Your task to perform on an android device: install app "Reddit" Image 0: 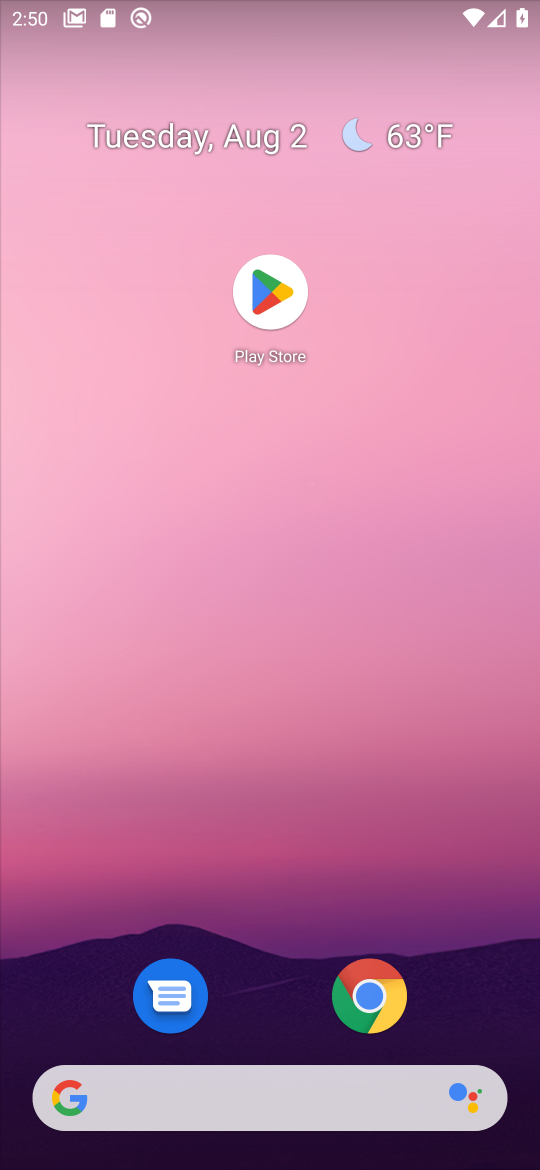
Step 0: click (256, 320)
Your task to perform on an android device: install app "Reddit" Image 1: 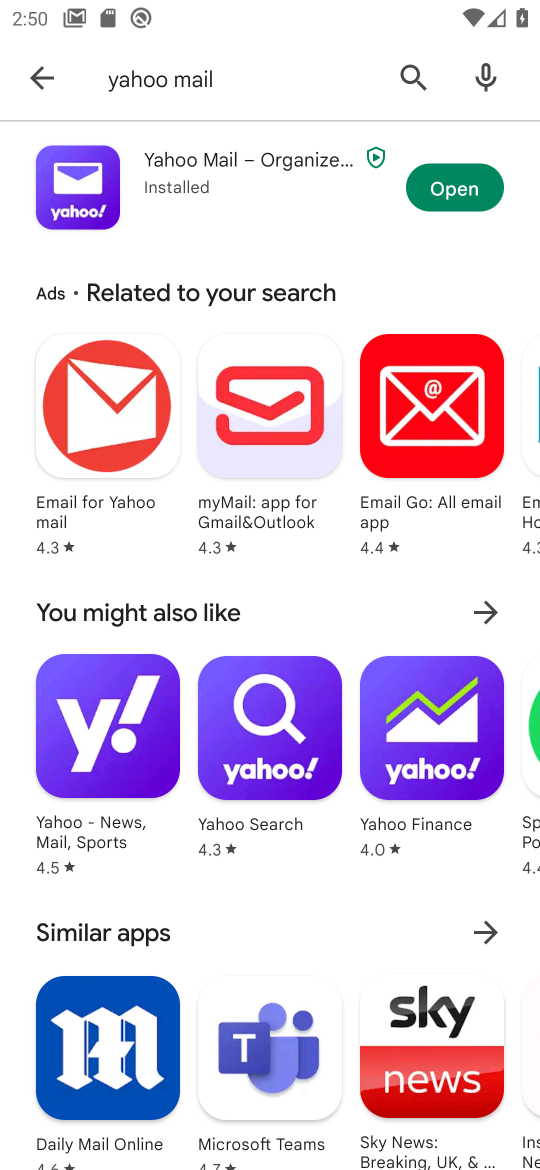
Step 1: click (324, 92)
Your task to perform on an android device: install app "Reddit" Image 2: 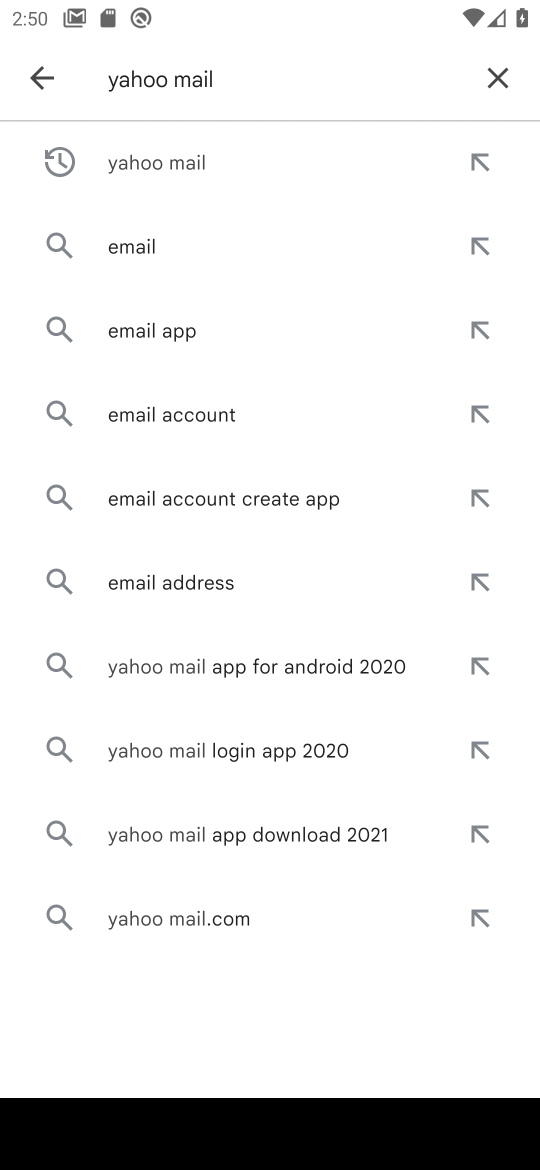
Step 2: click (495, 69)
Your task to perform on an android device: install app "Reddit" Image 3: 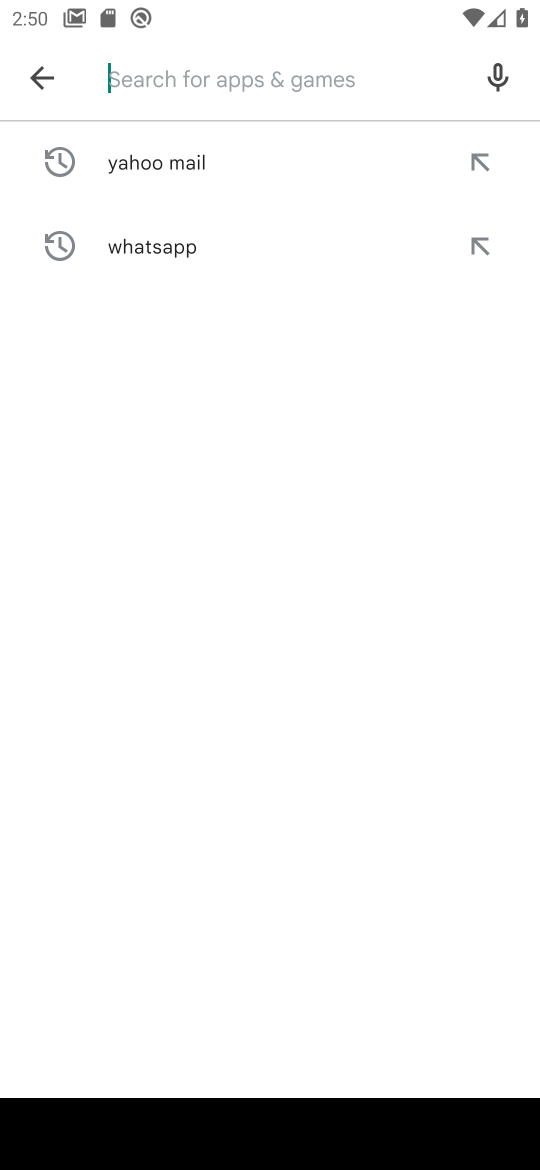
Step 3: type "reddit"
Your task to perform on an android device: install app "Reddit" Image 4: 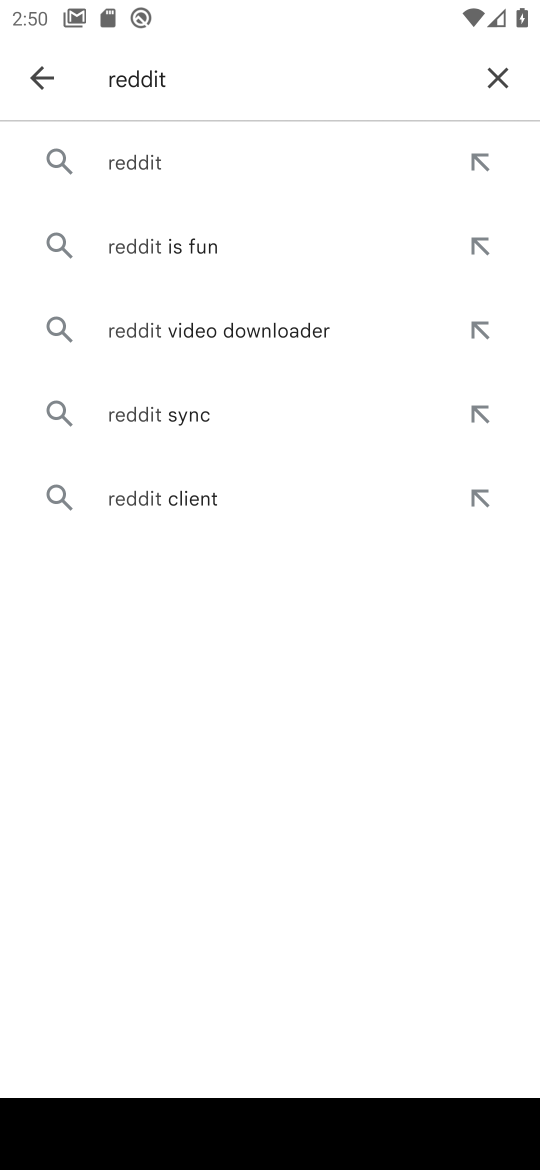
Step 4: click (180, 152)
Your task to perform on an android device: install app "Reddit" Image 5: 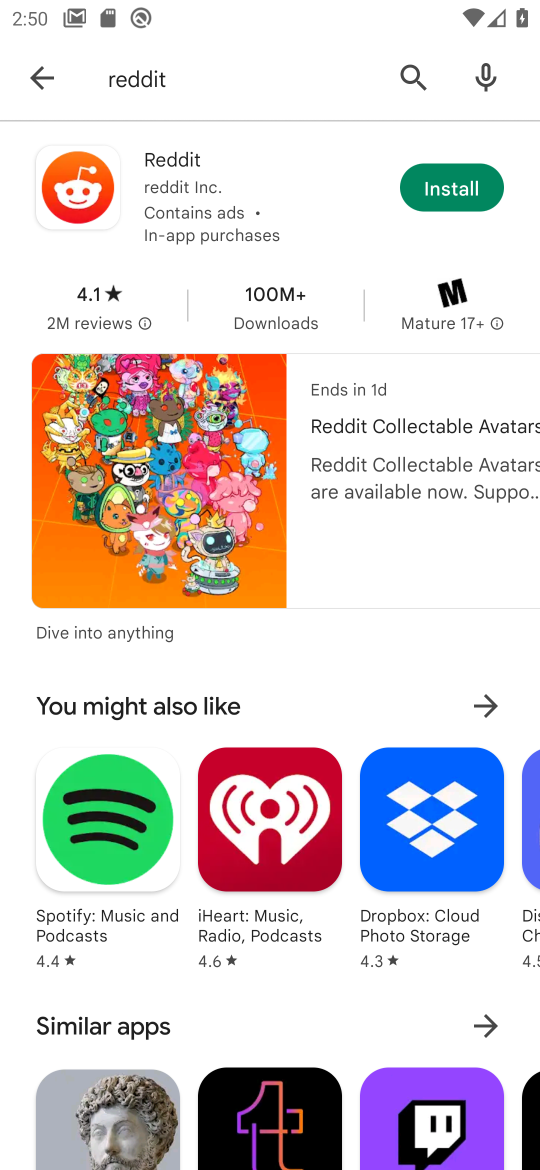
Step 5: click (417, 185)
Your task to perform on an android device: install app "Reddit" Image 6: 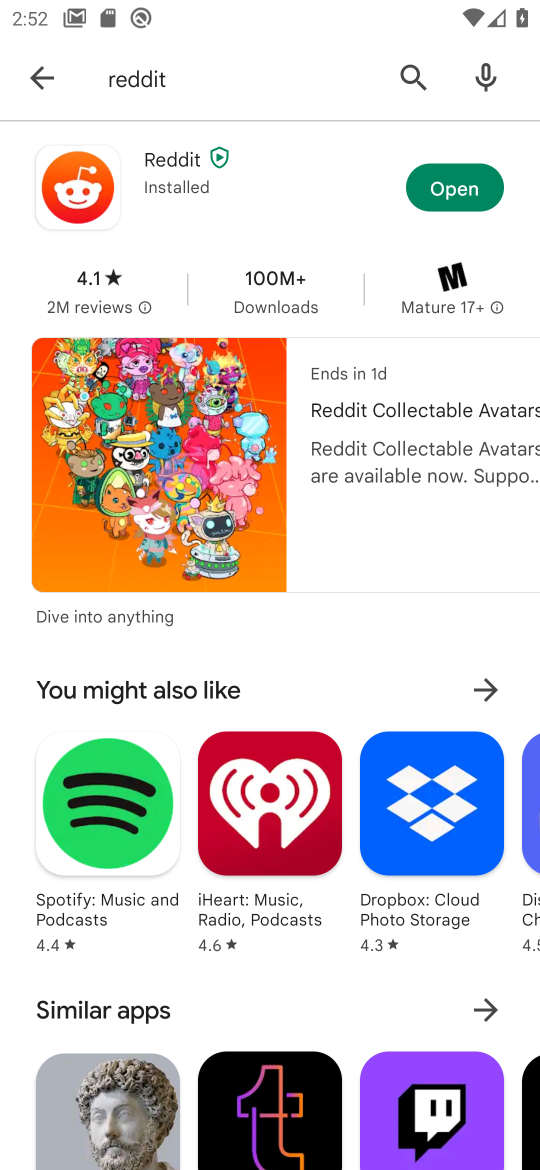
Step 6: task complete